Your task to perform on an android device: Go to display settings Image 0: 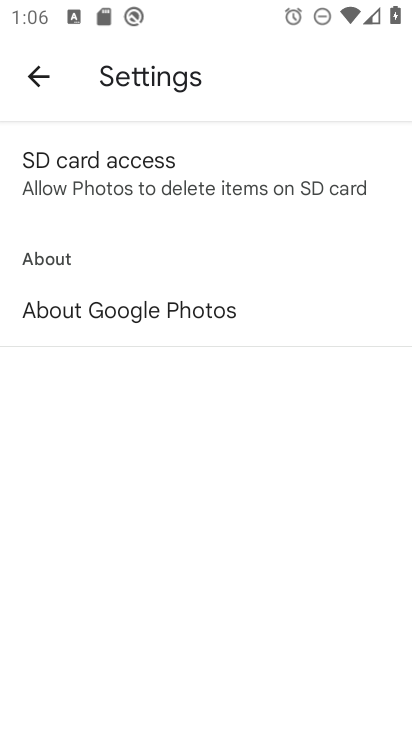
Step 0: press home button
Your task to perform on an android device: Go to display settings Image 1: 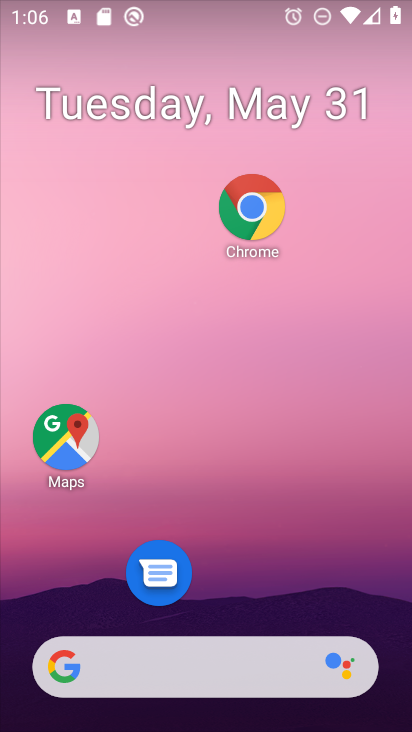
Step 1: drag from (284, 634) to (291, 148)
Your task to perform on an android device: Go to display settings Image 2: 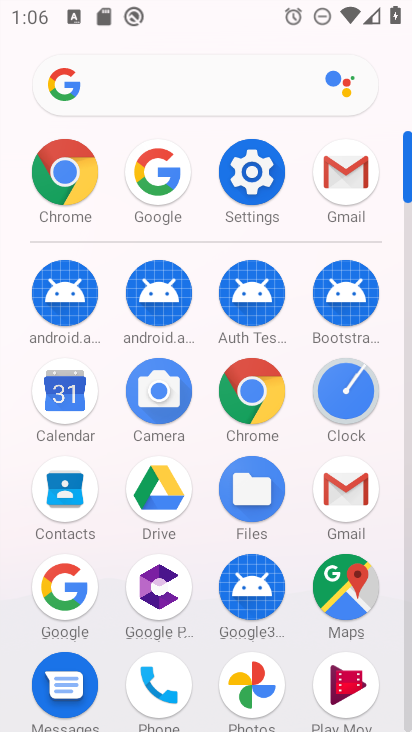
Step 2: click (253, 194)
Your task to perform on an android device: Go to display settings Image 3: 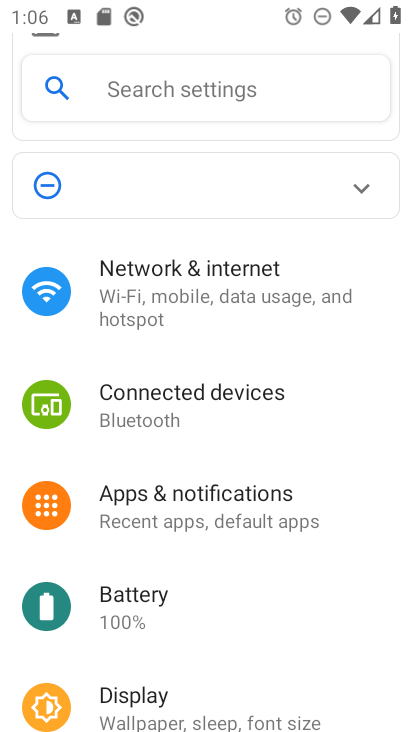
Step 3: drag from (174, 535) to (203, 203)
Your task to perform on an android device: Go to display settings Image 4: 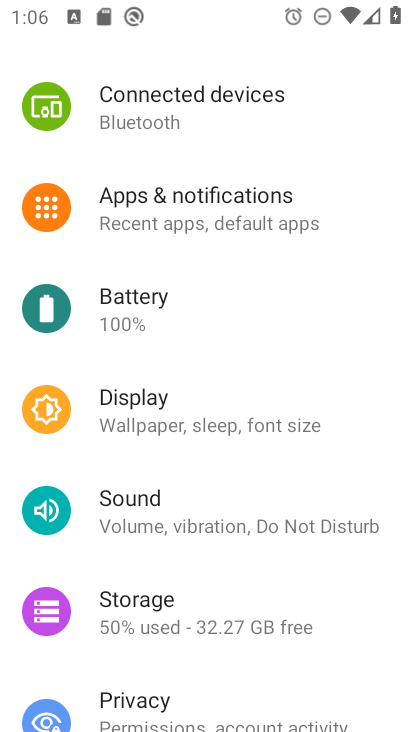
Step 4: click (225, 411)
Your task to perform on an android device: Go to display settings Image 5: 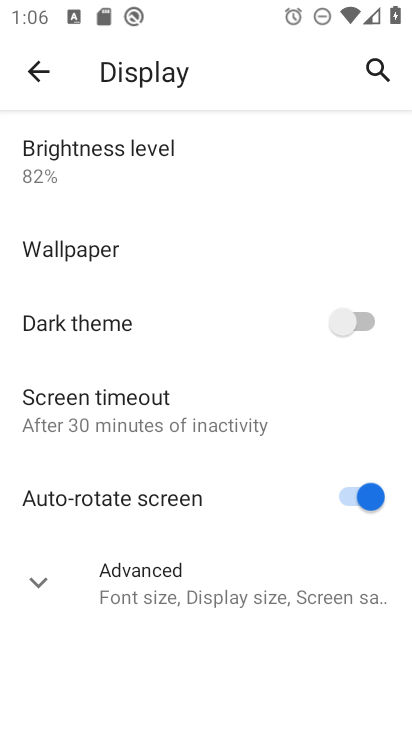
Step 5: task complete